Your task to perform on an android device: Show me productivity apps on the Play Store Image 0: 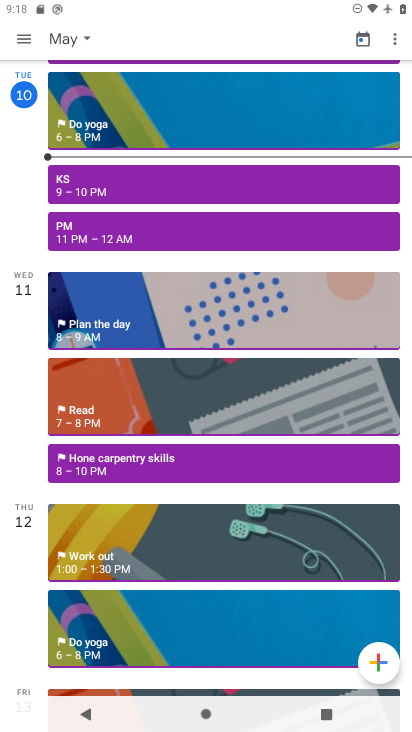
Step 0: press home button
Your task to perform on an android device: Show me productivity apps on the Play Store Image 1: 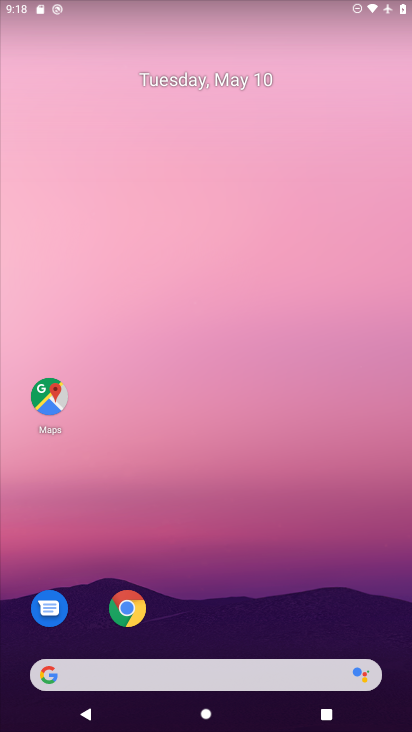
Step 1: drag from (224, 564) to (251, 258)
Your task to perform on an android device: Show me productivity apps on the Play Store Image 2: 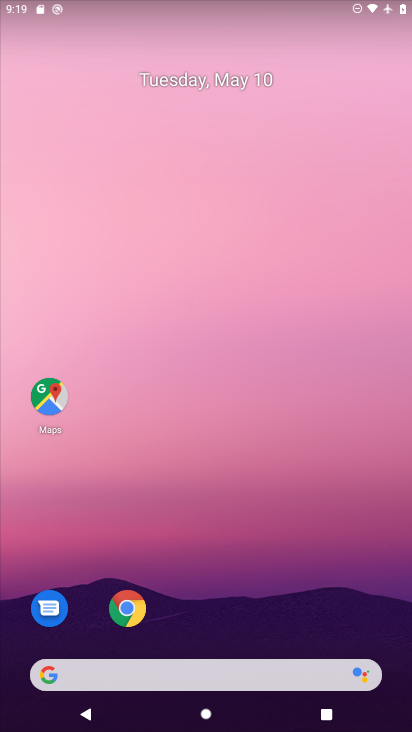
Step 2: drag from (250, 630) to (277, 245)
Your task to perform on an android device: Show me productivity apps on the Play Store Image 3: 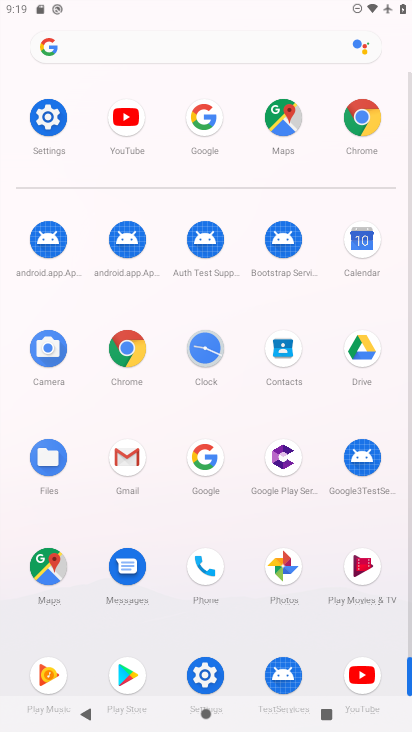
Step 3: click (126, 667)
Your task to perform on an android device: Show me productivity apps on the Play Store Image 4: 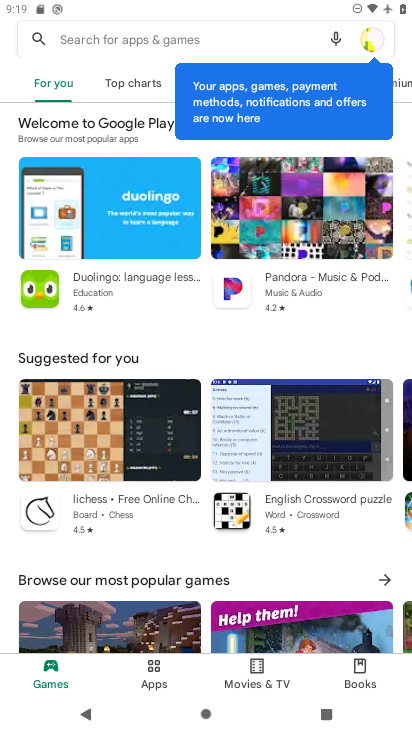
Step 4: click (159, 669)
Your task to perform on an android device: Show me productivity apps on the Play Store Image 5: 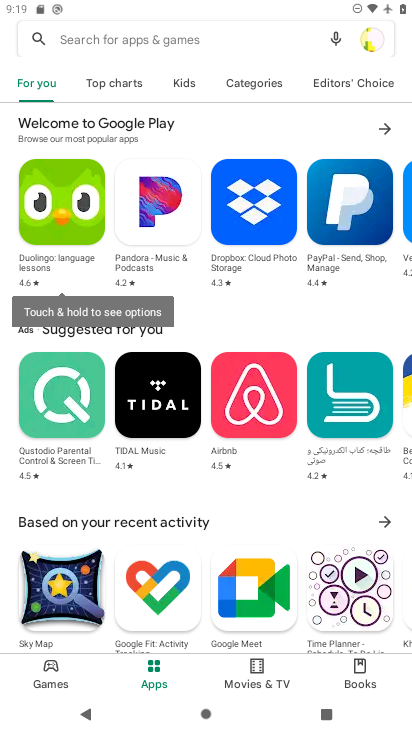
Step 5: task complete